Your task to perform on an android device: star an email in the gmail app Image 0: 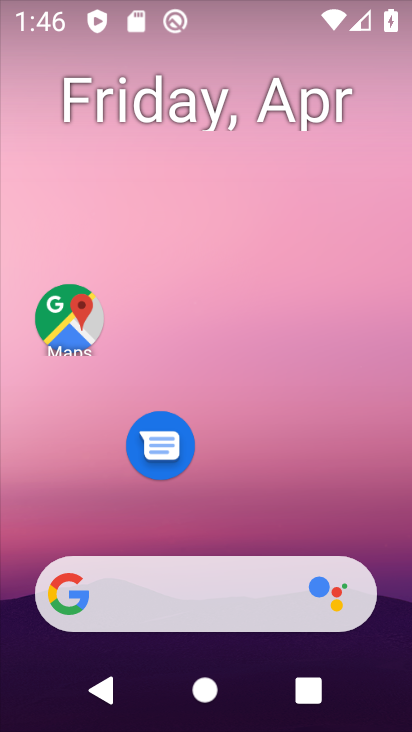
Step 0: drag from (273, 434) to (301, 62)
Your task to perform on an android device: star an email in the gmail app Image 1: 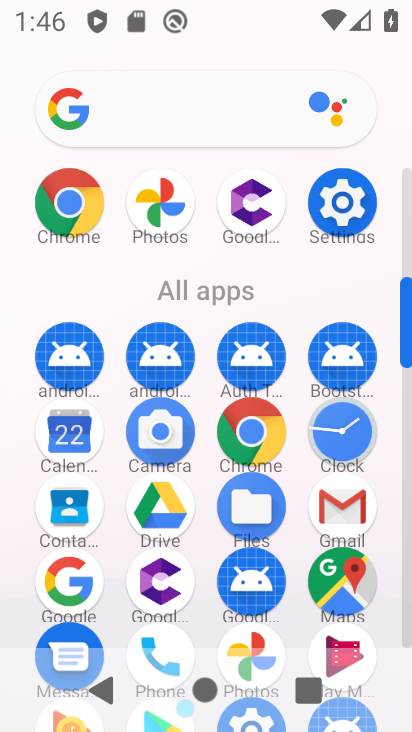
Step 1: click (348, 517)
Your task to perform on an android device: star an email in the gmail app Image 2: 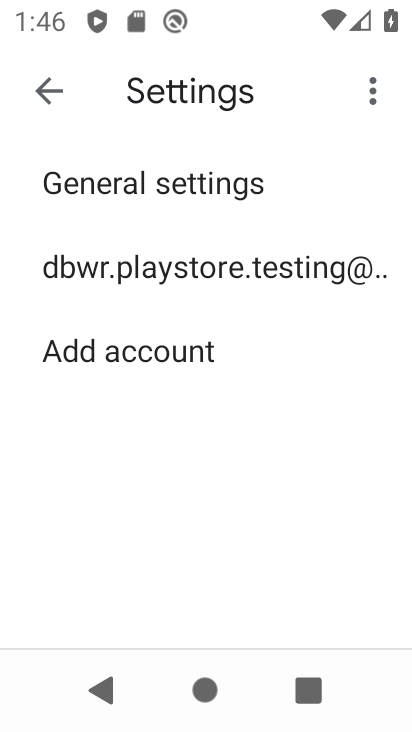
Step 2: click (250, 269)
Your task to perform on an android device: star an email in the gmail app Image 3: 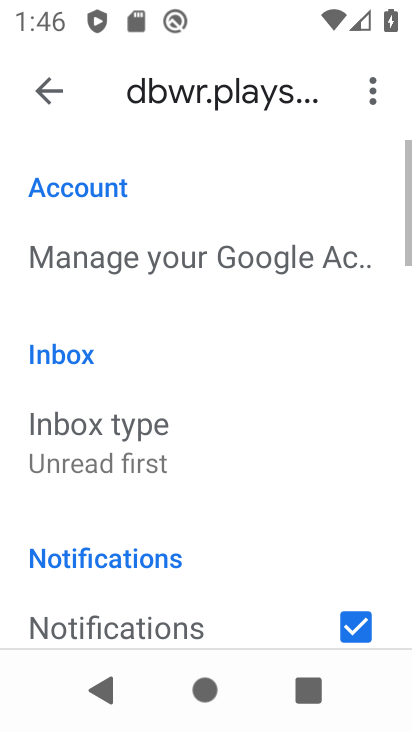
Step 3: click (25, 84)
Your task to perform on an android device: star an email in the gmail app Image 4: 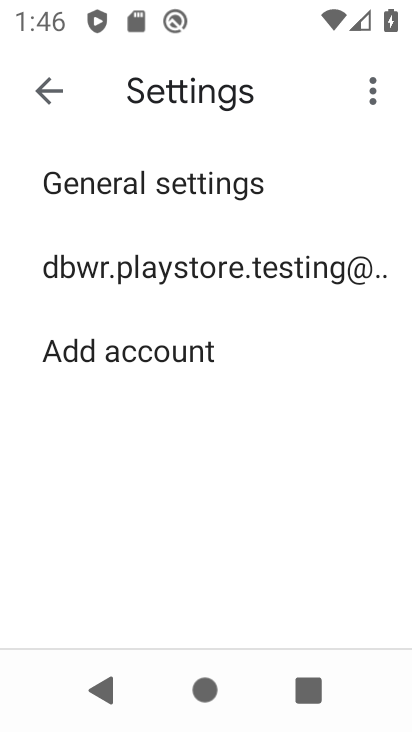
Step 4: click (26, 84)
Your task to perform on an android device: star an email in the gmail app Image 5: 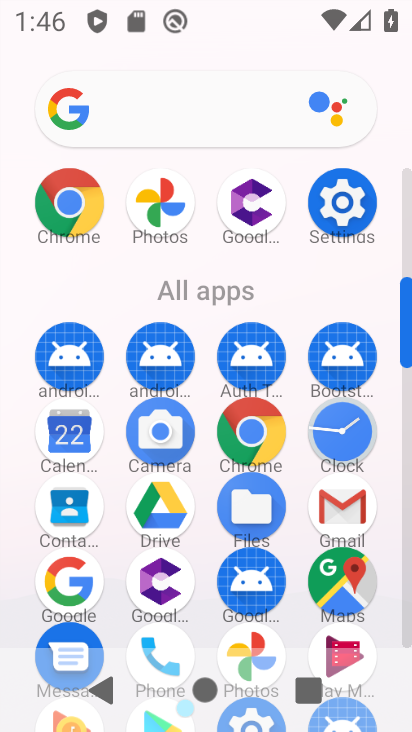
Step 5: click (348, 503)
Your task to perform on an android device: star an email in the gmail app Image 6: 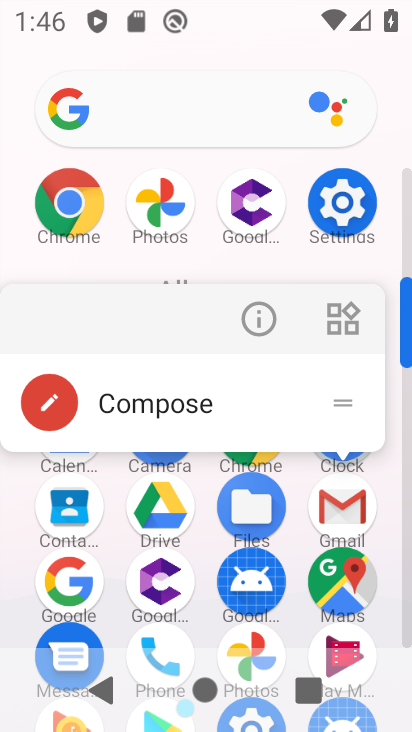
Step 6: click (346, 499)
Your task to perform on an android device: star an email in the gmail app Image 7: 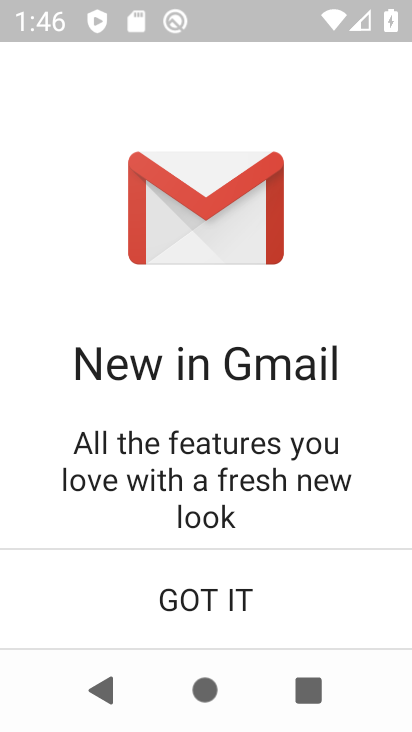
Step 7: click (170, 613)
Your task to perform on an android device: star an email in the gmail app Image 8: 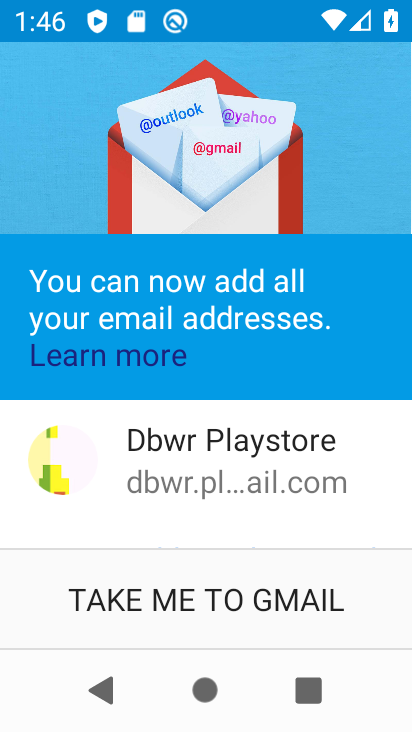
Step 8: click (170, 613)
Your task to perform on an android device: star an email in the gmail app Image 9: 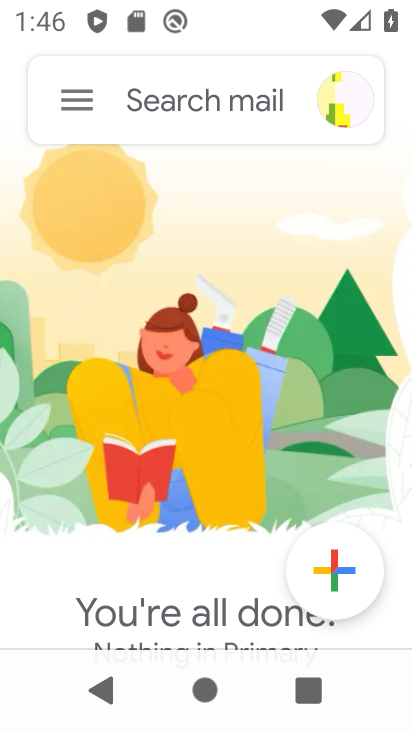
Step 9: click (81, 93)
Your task to perform on an android device: star an email in the gmail app Image 10: 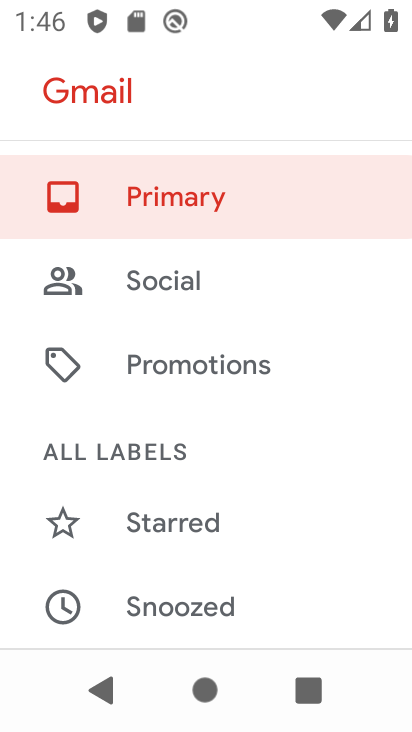
Step 10: drag from (164, 550) to (230, 261)
Your task to perform on an android device: star an email in the gmail app Image 11: 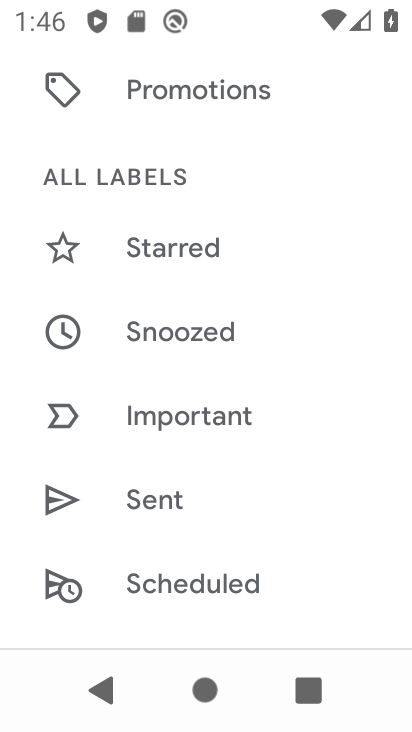
Step 11: drag from (213, 548) to (263, 299)
Your task to perform on an android device: star an email in the gmail app Image 12: 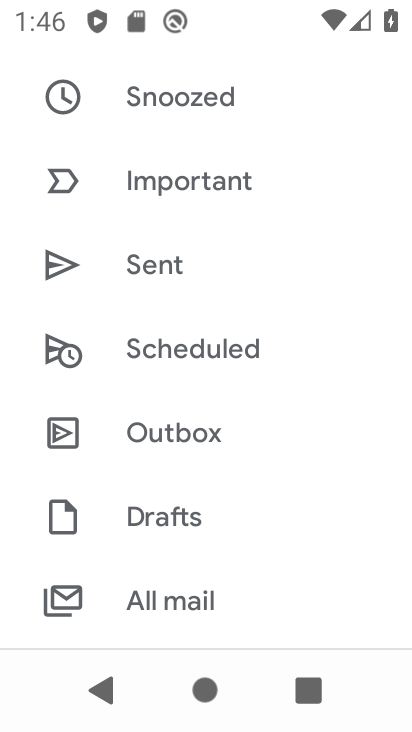
Step 12: click (190, 589)
Your task to perform on an android device: star an email in the gmail app Image 13: 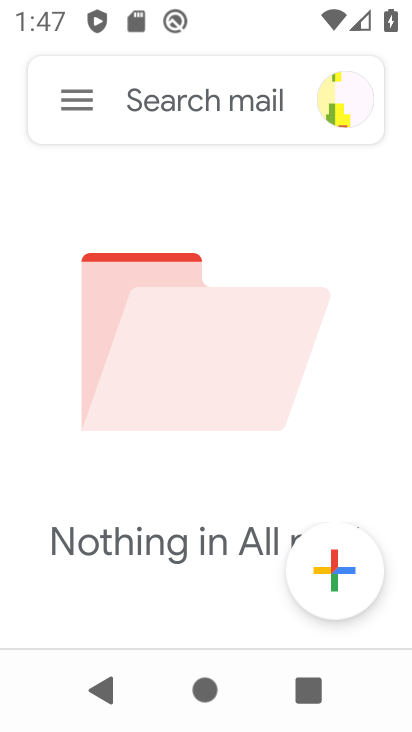
Step 13: task complete